Your task to perform on an android device: open app "Life360: Find Family & Friends" (install if not already installed) and go to login screen Image 0: 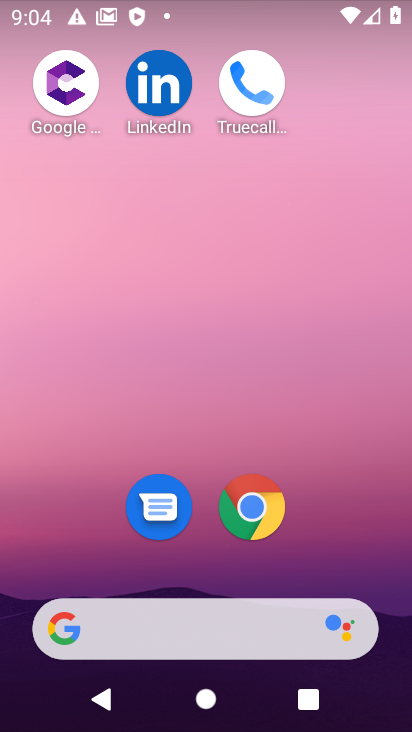
Step 0: drag from (183, 579) to (35, 7)
Your task to perform on an android device: open app "Life360: Find Family & Friends" (install if not already installed) and go to login screen Image 1: 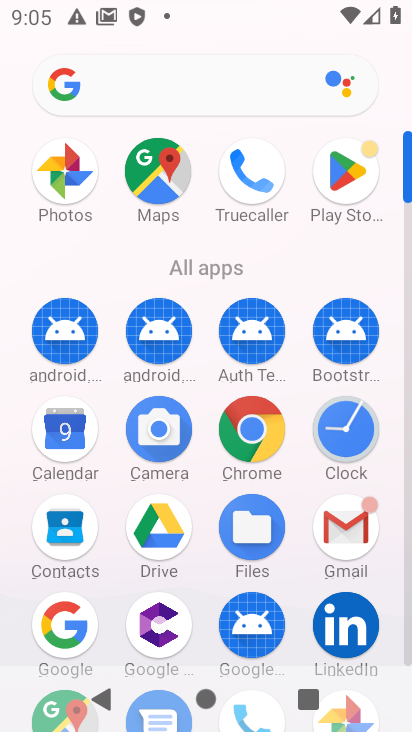
Step 1: click (332, 164)
Your task to perform on an android device: open app "Life360: Find Family & Friends" (install if not already installed) and go to login screen Image 2: 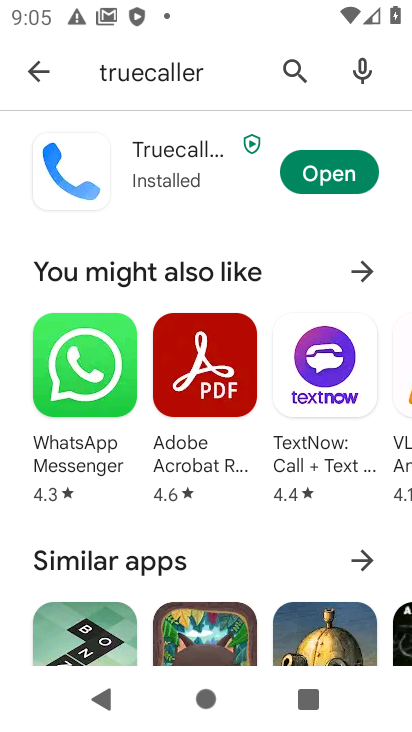
Step 2: click (50, 72)
Your task to perform on an android device: open app "Life360: Find Family & Friends" (install if not already installed) and go to login screen Image 3: 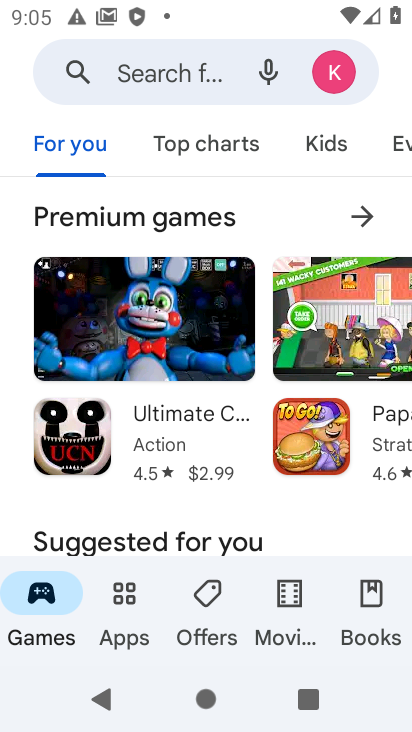
Step 3: click (180, 90)
Your task to perform on an android device: open app "Life360: Find Family & Friends" (install if not already installed) and go to login screen Image 4: 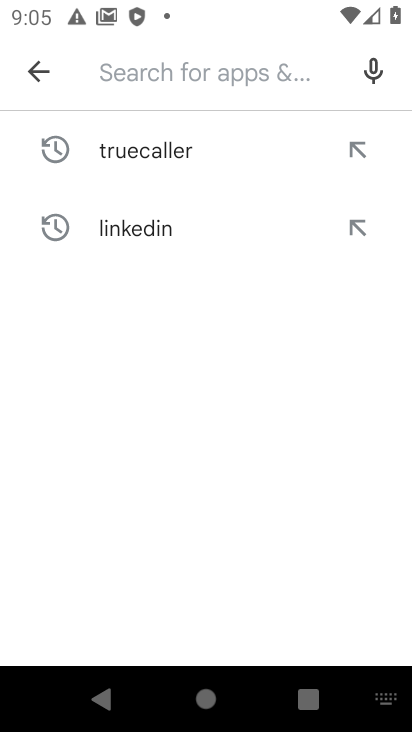
Step 4: type "ife360: Find Family & Friends"
Your task to perform on an android device: open app "Life360: Find Family & Friends" (install if not already installed) and go to login screen Image 5: 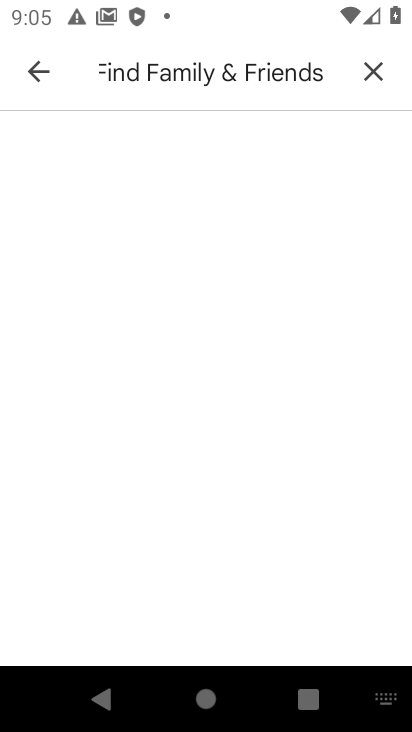
Step 5: press enter
Your task to perform on an android device: open app "Life360: Find Family & Friends" (install if not already installed) and go to login screen Image 6: 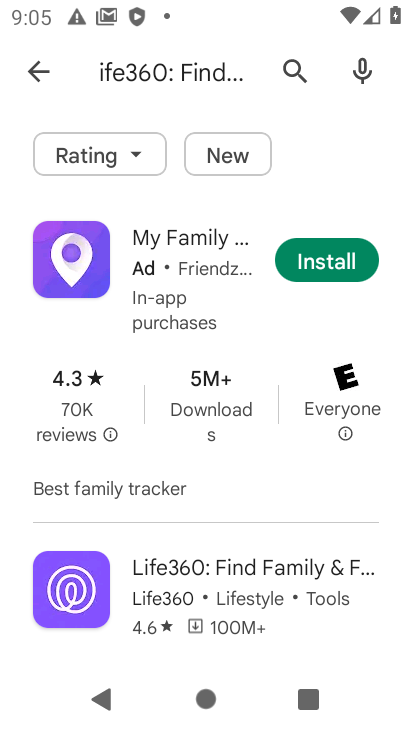
Step 6: click (336, 270)
Your task to perform on an android device: open app "Life360: Find Family & Friends" (install if not already installed) and go to login screen Image 7: 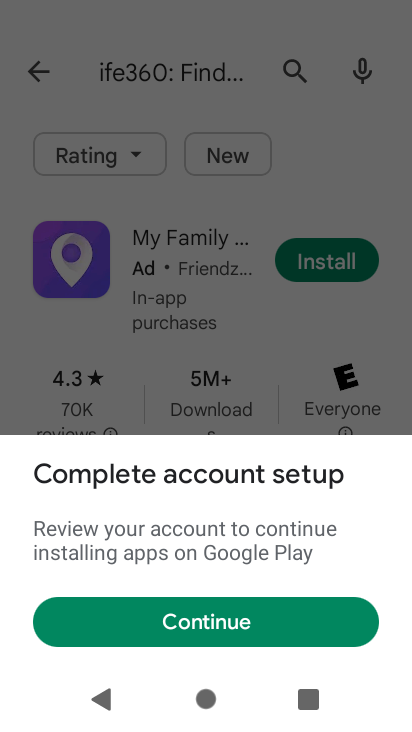
Step 7: click (235, 626)
Your task to perform on an android device: open app "Life360: Find Family & Friends" (install if not already installed) and go to login screen Image 8: 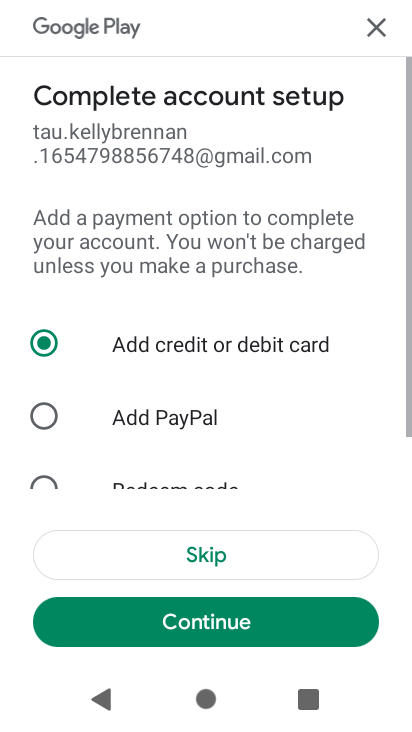
Step 8: click (220, 552)
Your task to perform on an android device: open app "Life360: Find Family & Friends" (install if not already installed) and go to login screen Image 9: 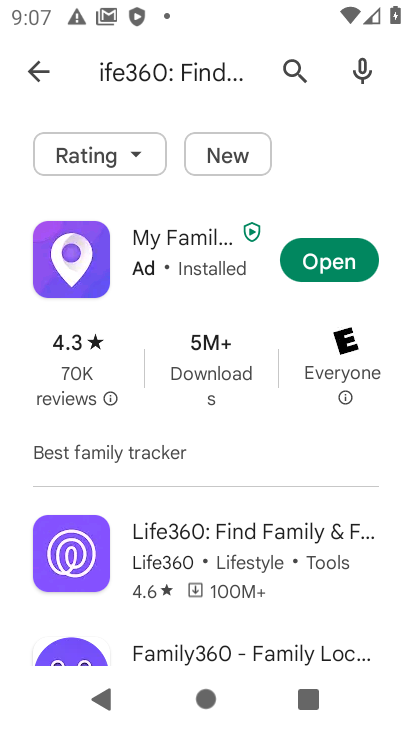
Step 9: click (349, 254)
Your task to perform on an android device: open app "Life360: Find Family & Friends" (install if not already installed) and go to login screen Image 10: 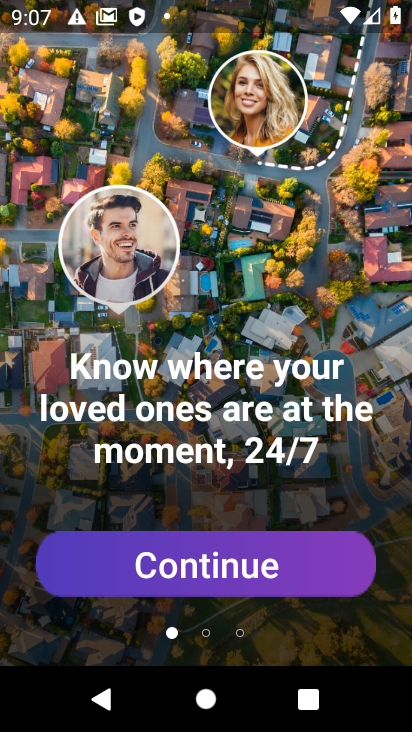
Step 10: click (273, 542)
Your task to perform on an android device: open app "Life360: Find Family & Friends" (install if not already installed) and go to login screen Image 11: 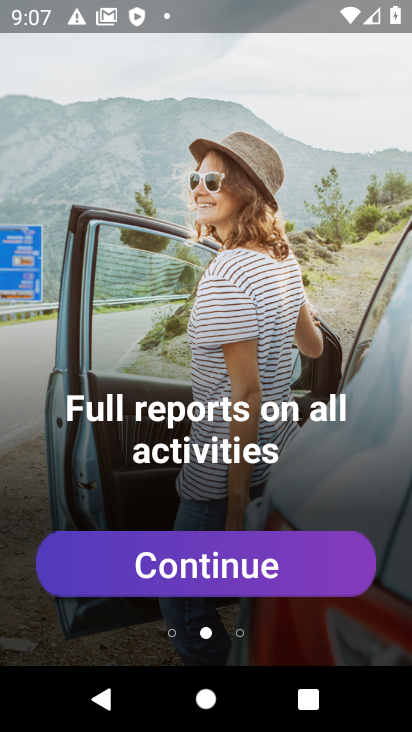
Step 11: click (261, 578)
Your task to perform on an android device: open app "Life360: Find Family & Friends" (install if not already installed) and go to login screen Image 12: 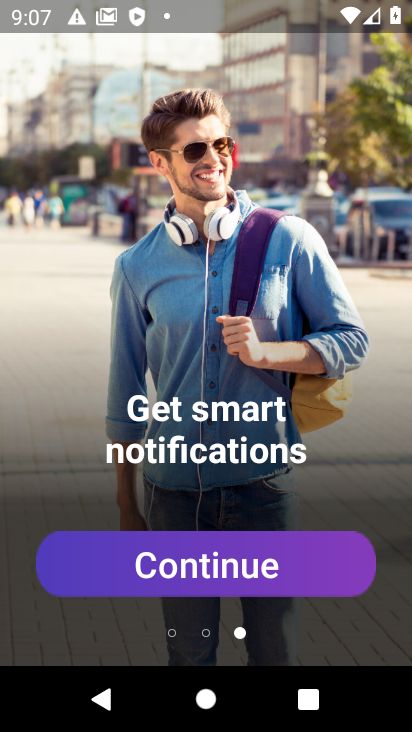
Step 12: click (261, 578)
Your task to perform on an android device: open app "Life360: Find Family & Friends" (install if not already installed) and go to login screen Image 13: 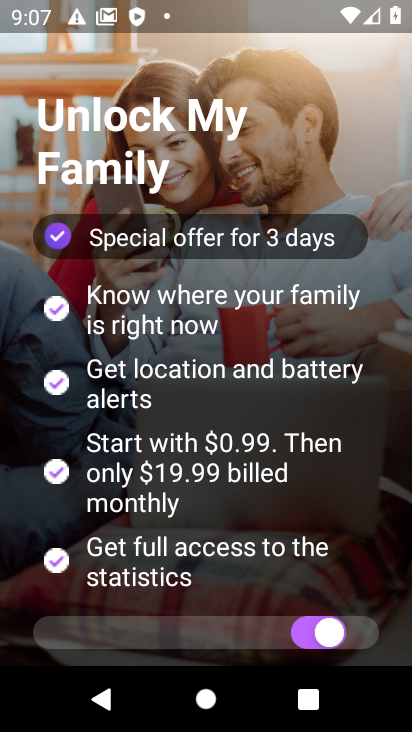
Step 13: drag from (268, 553) to (209, 257)
Your task to perform on an android device: open app "Life360: Find Family & Friends" (install if not already installed) and go to login screen Image 14: 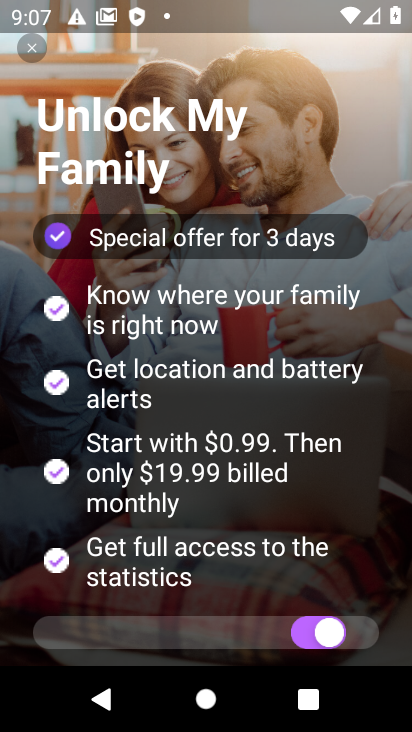
Step 14: click (321, 641)
Your task to perform on an android device: open app "Life360: Find Family & Friends" (install if not already installed) and go to login screen Image 15: 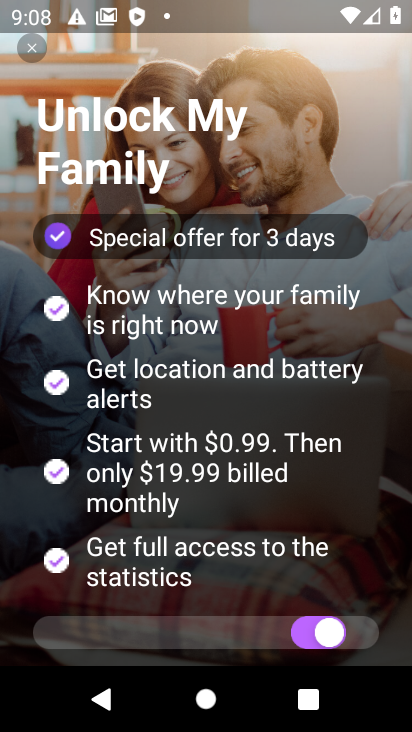
Step 15: task complete